Your task to perform on an android device: turn off location Image 0: 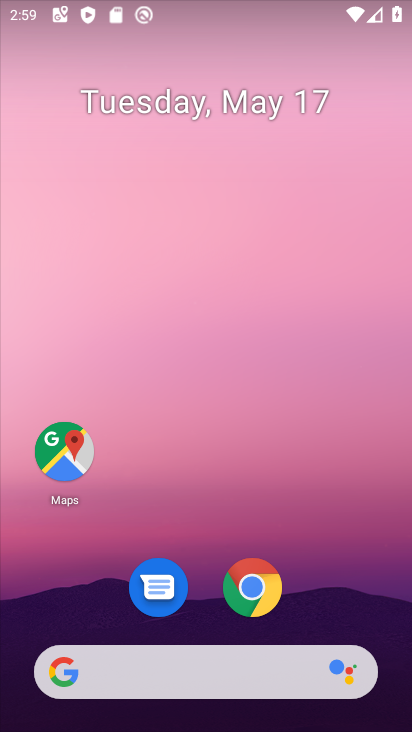
Step 0: drag from (225, 625) to (253, 0)
Your task to perform on an android device: turn off location Image 1: 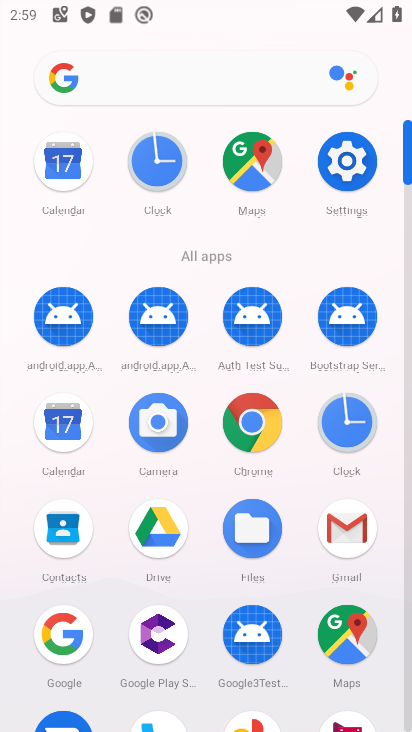
Step 1: click (344, 166)
Your task to perform on an android device: turn off location Image 2: 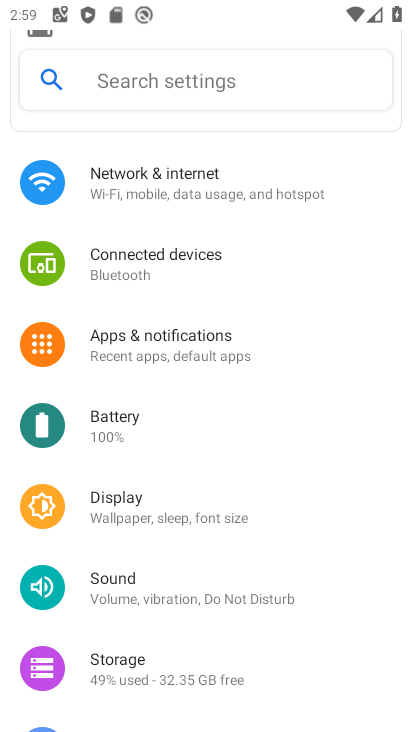
Step 2: drag from (189, 655) to (162, 148)
Your task to perform on an android device: turn off location Image 3: 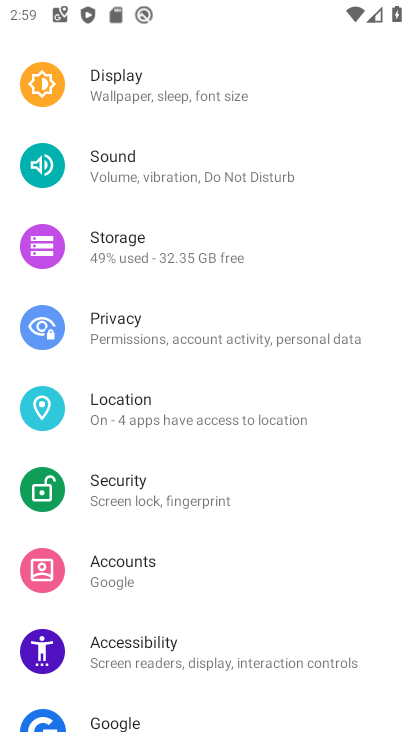
Step 3: click (156, 399)
Your task to perform on an android device: turn off location Image 4: 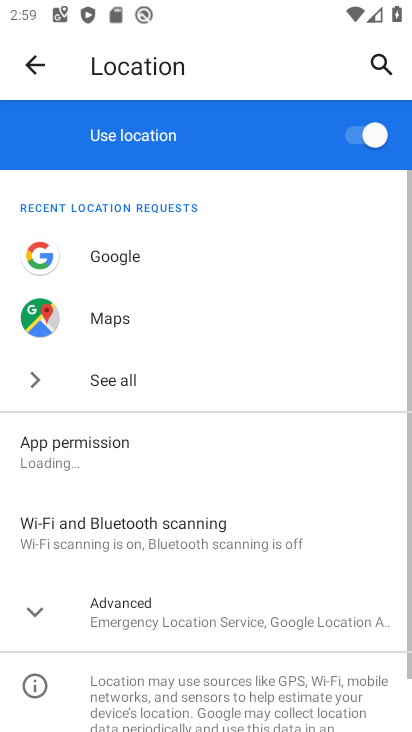
Step 4: click (362, 132)
Your task to perform on an android device: turn off location Image 5: 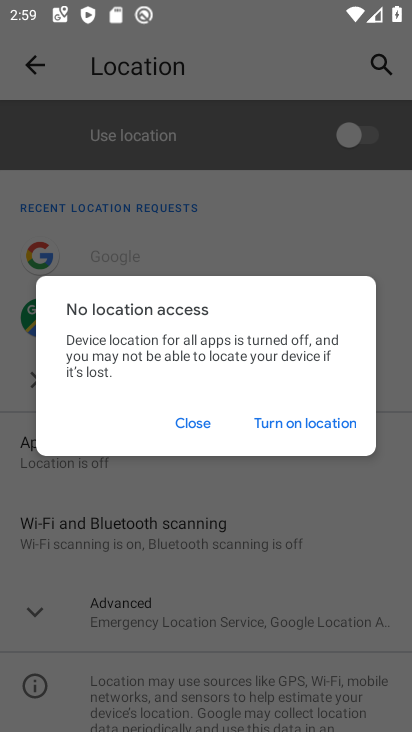
Step 5: click (198, 423)
Your task to perform on an android device: turn off location Image 6: 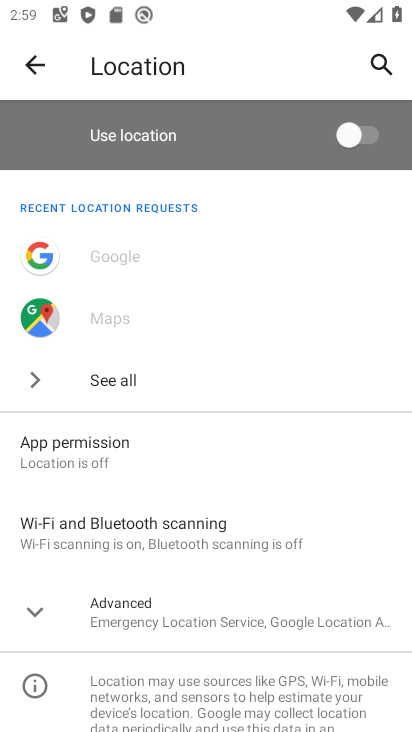
Step 6: task complete